Your task to perform on an android device: set default search engine in the chrome app Image 0: 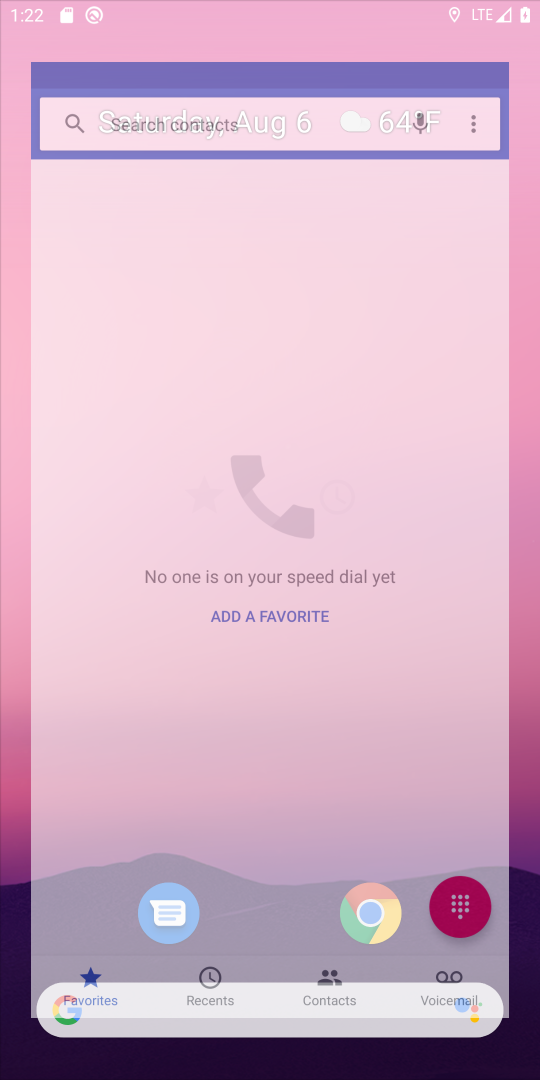
Step 0: press home button
Your task to perform on an android device: set default search engine in the chrome app Image 1: 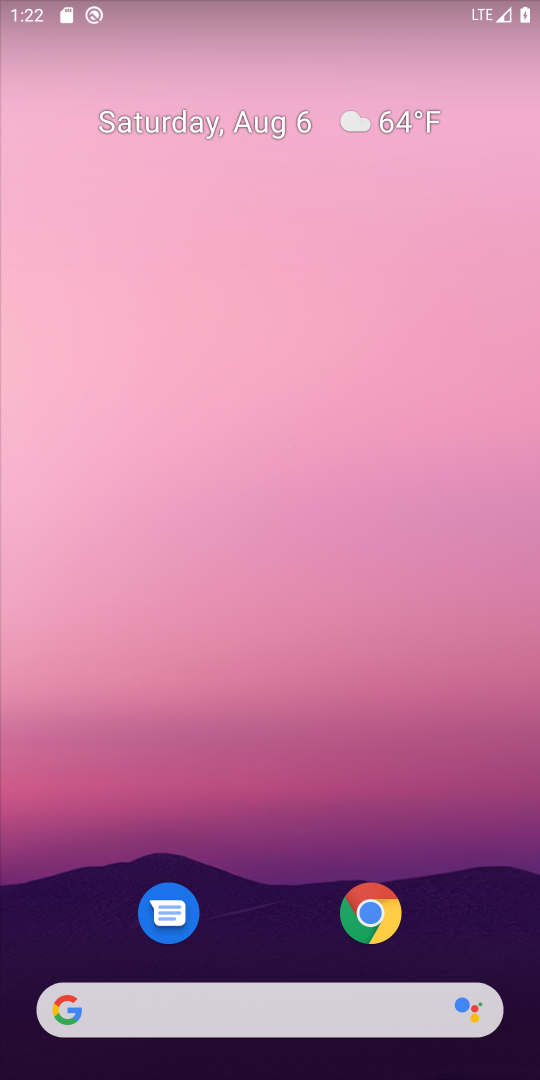
Step 1: drag from (291, 877) to (328, 383)
Your task to perform on an android device: set default search engine in the chrome app Image 2: 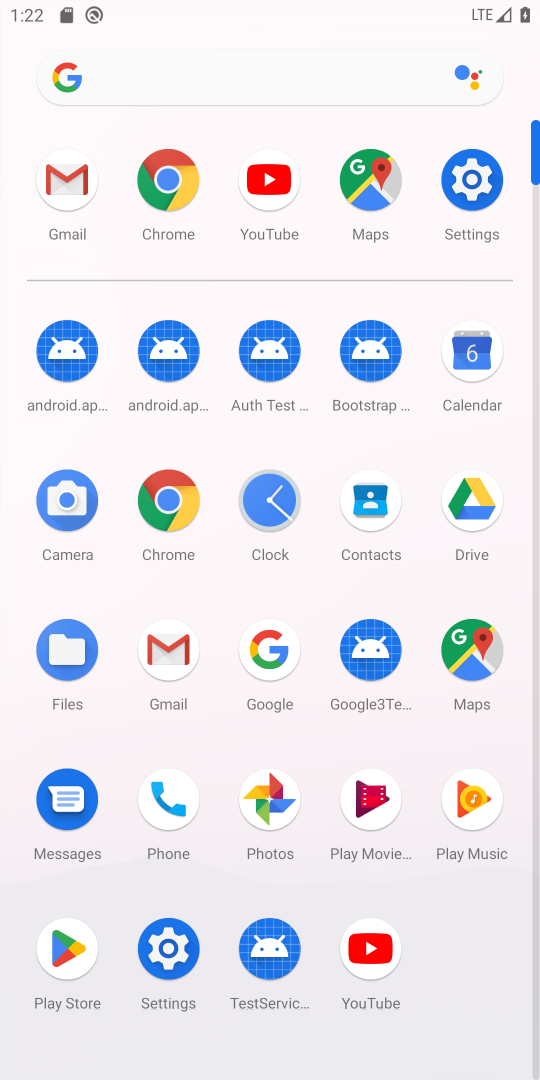
Step 2: click (152, 510)
Your task to perform on an android device: set default search engine in the chrome app Image 3: 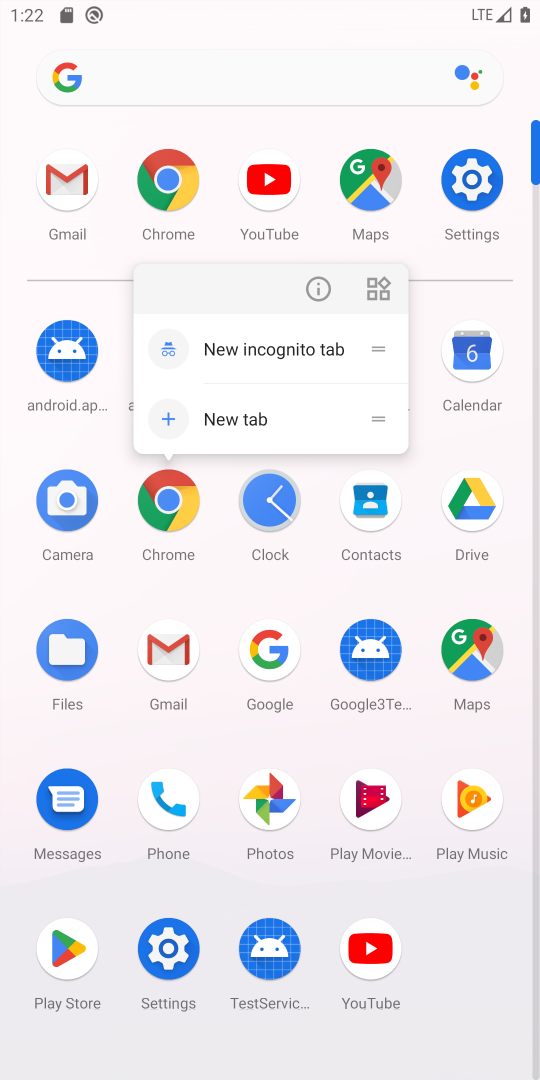
Step 3: click (152, 510)
Your task to perform on an android device: set default search engine in the chrome app Image 4: 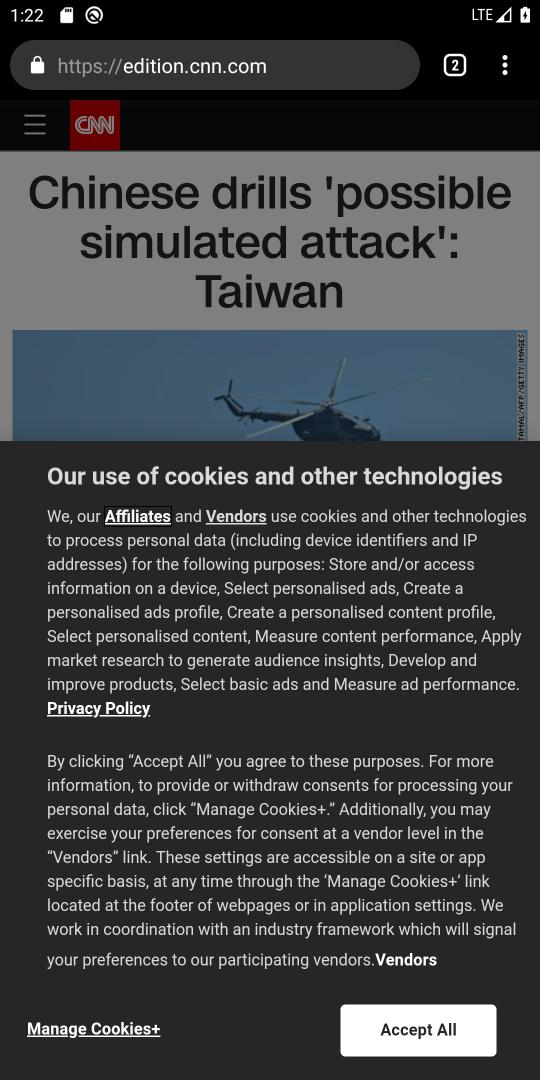
Step 4: click (510, 71)
Your task to perform on an android device: set default search engine in the chrome app Image 5: 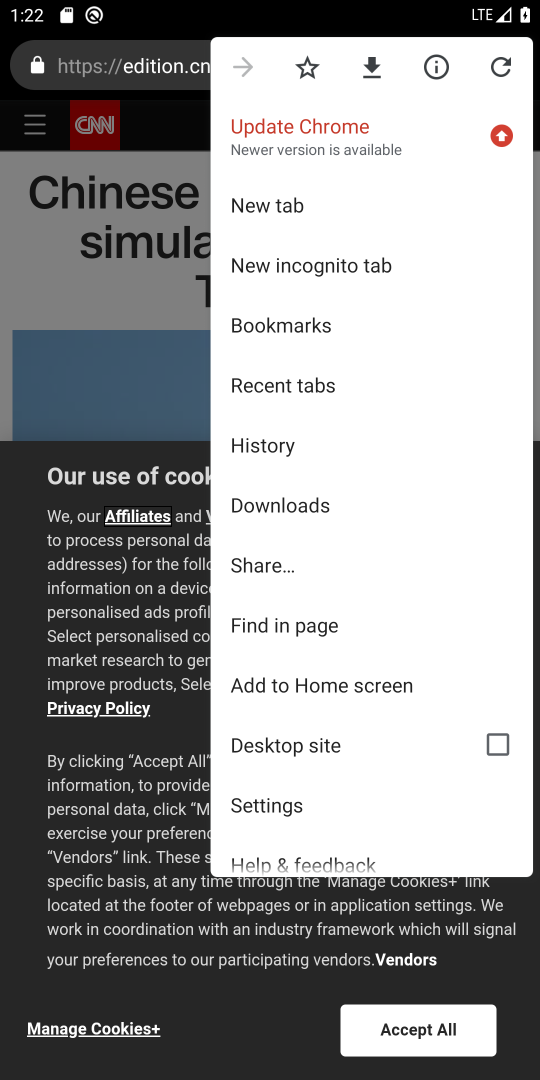
Step 5: click (271, 800)
Your task to perform on an android device: set default search engine in the chrome app Image 6: 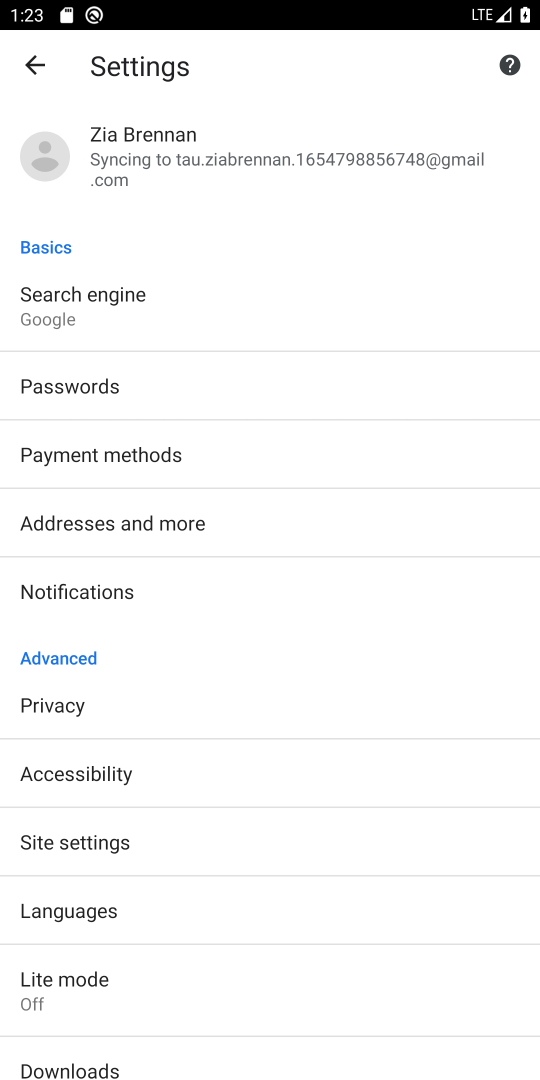
Step 6: drag from (418, 748) to (411, 557)
Your task to perform on an android device: set default search engine in the chrome app Image 7: 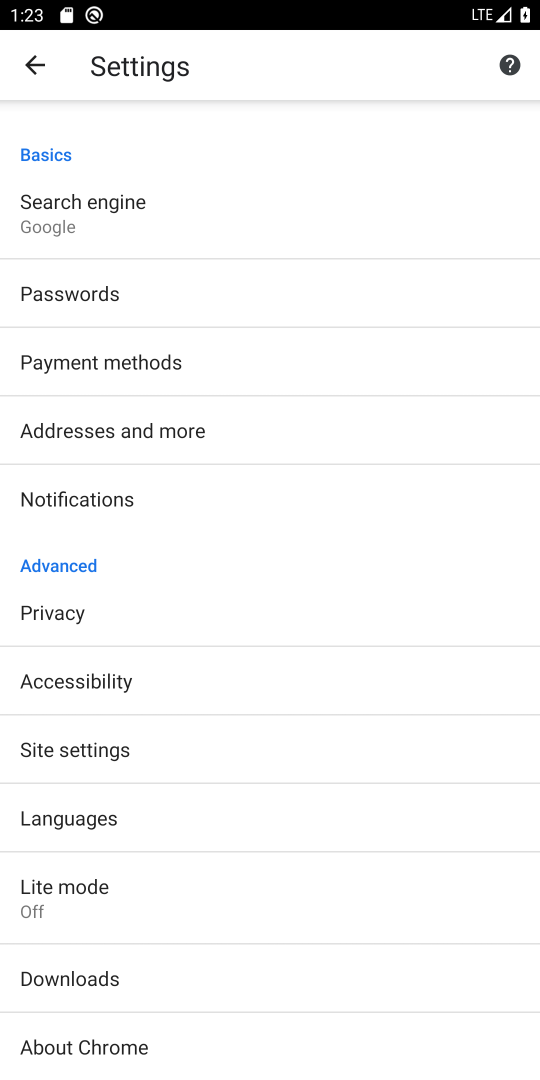
Step 7: drag from (397, 818) to (400, 563)
Your task to perform on an android device: set default search engine in the chrome app Image 8: 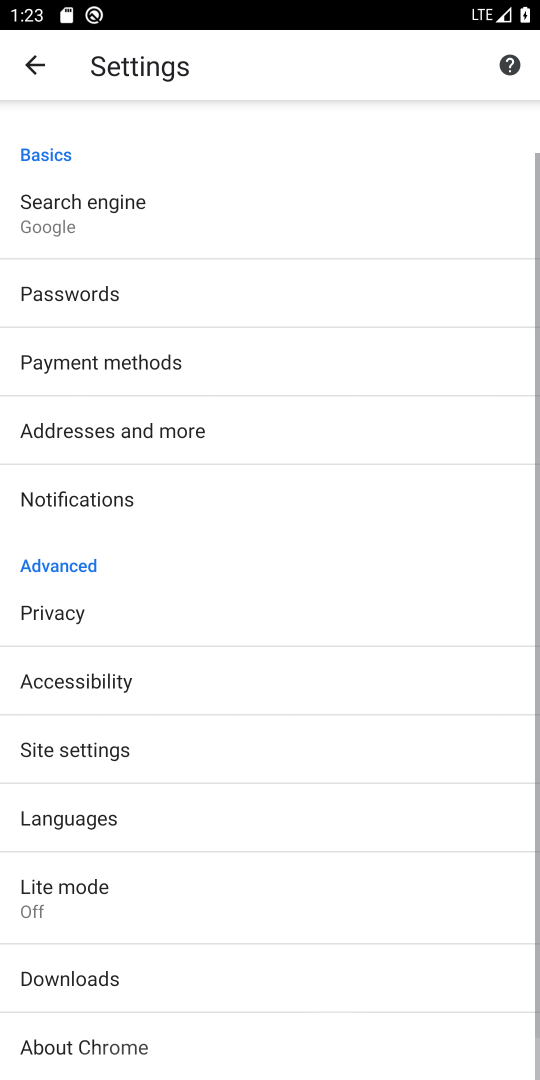
Step 8: drag from (379, 703) to (386, 759)
Your task to perform on an android device: set default search engine in the chrome app Image 9: 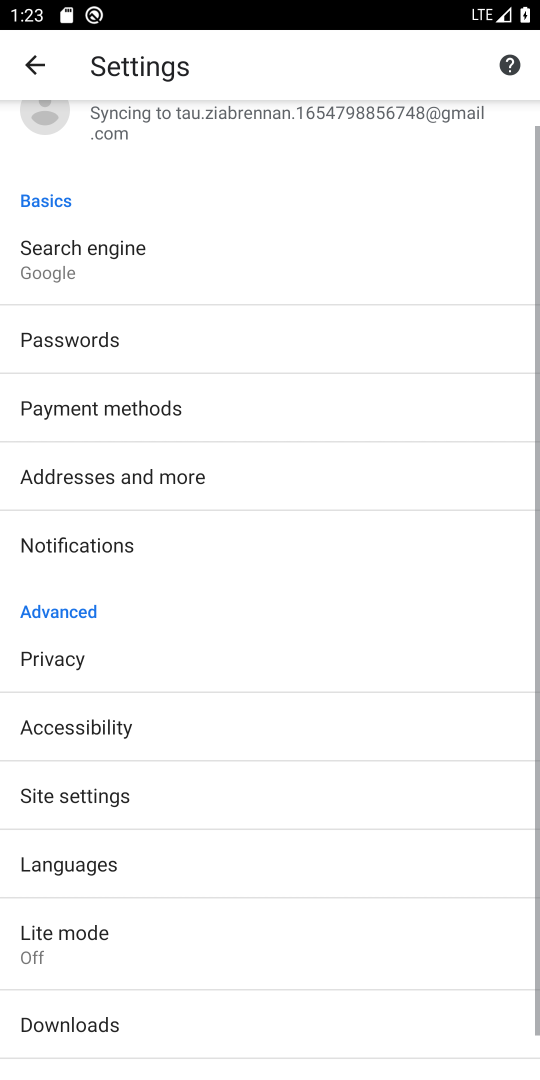
Step 9: drag from (348, 440) to (369, 760)
Your task to perform on an android device: set default search engine in the chrome app Image 10: 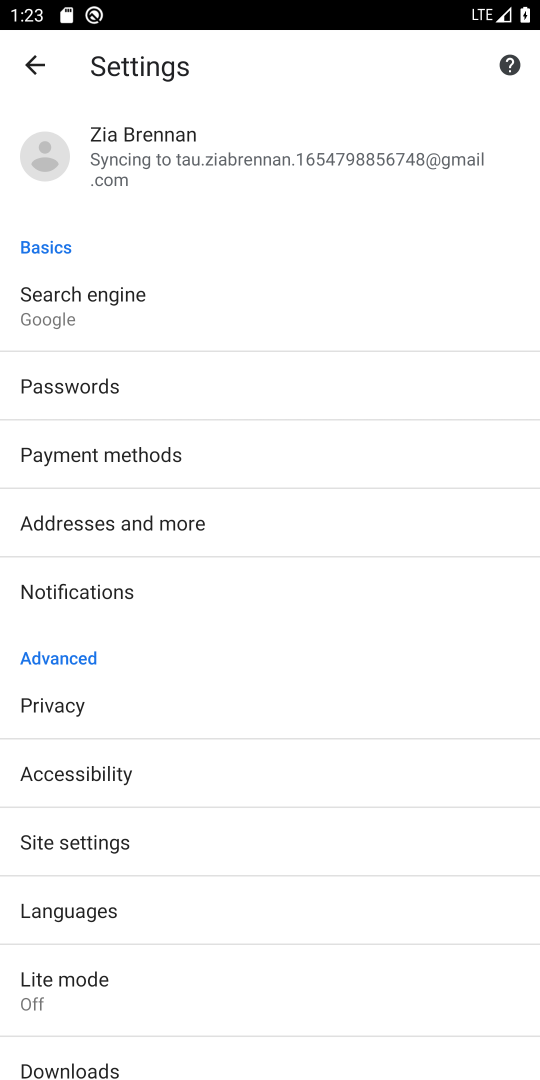
Step 10: click (154, 307)
Your task to perform on an android device: set default search engine in the chrome app Image 11: 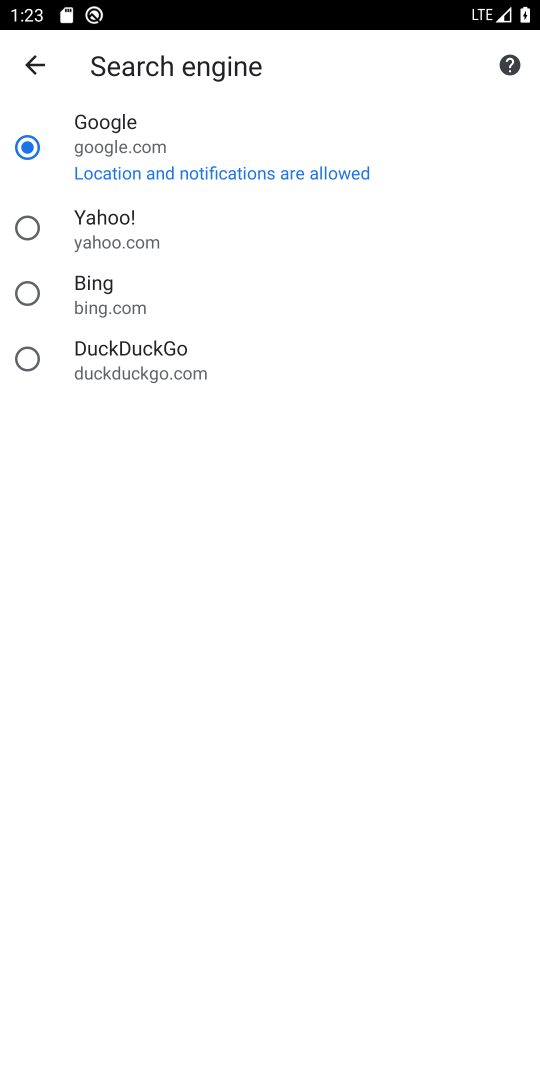
Step 11: click (23, 288)
Your task to perform on an android device: set default search engine in the chrome app Image 12: 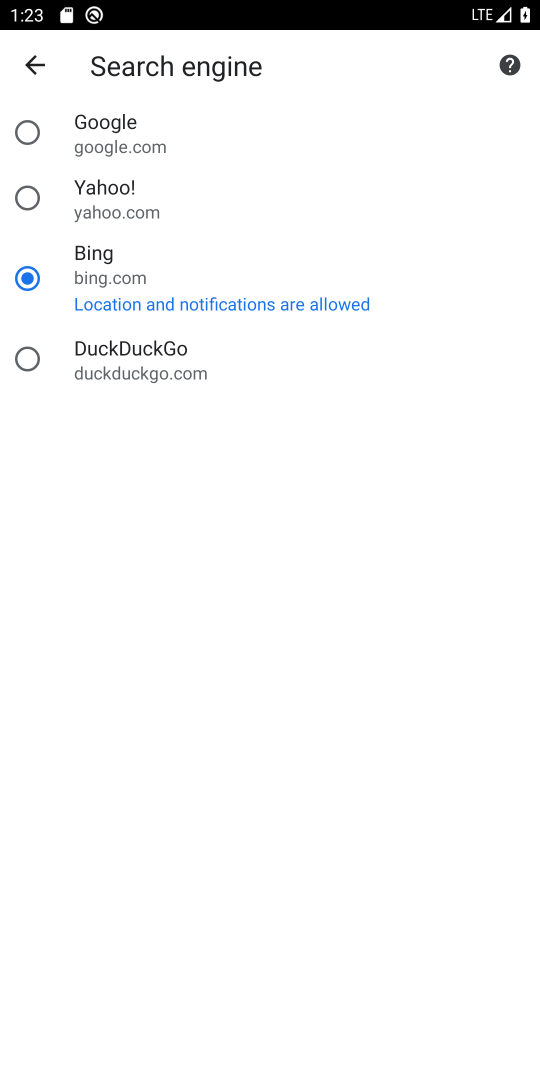
Step 12: task complete